Your task to perform on an android device: Go to accessibility settings Image 0: 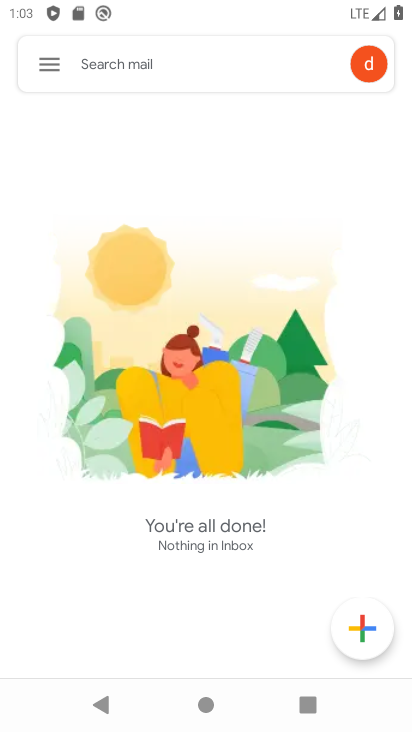
Step 0: press home button
Your task to perform on an android device: Go to accessibility settings Image 1: 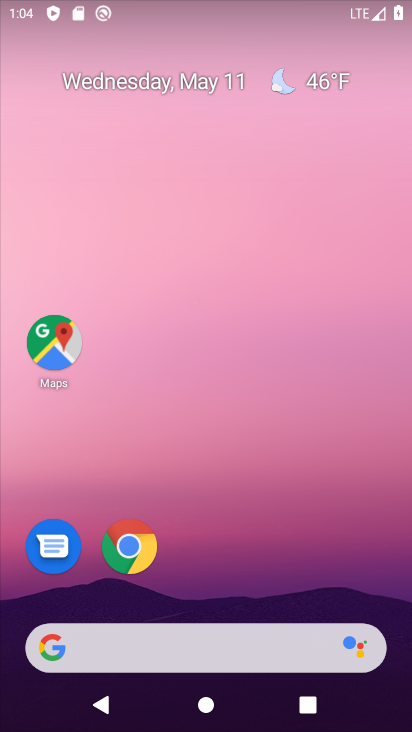
Step 1: drag from (266, 679) to (187, 227)
Your task to perform on an android device: Go to accessibility settings Image 2: 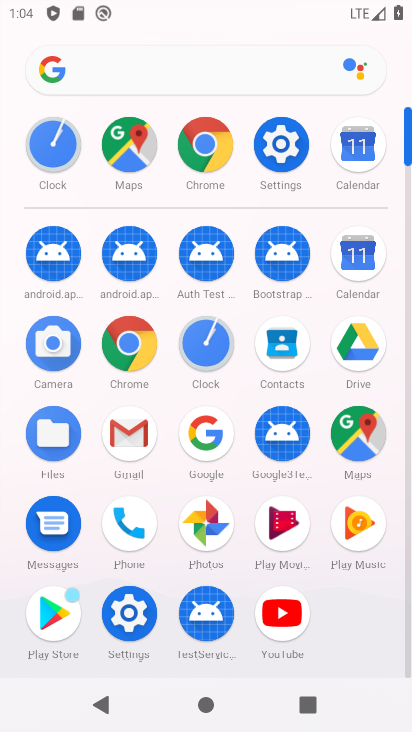
Step 2: click (275, 143)
Your task to perform on an android device: Go to accessibility settings Image 3: 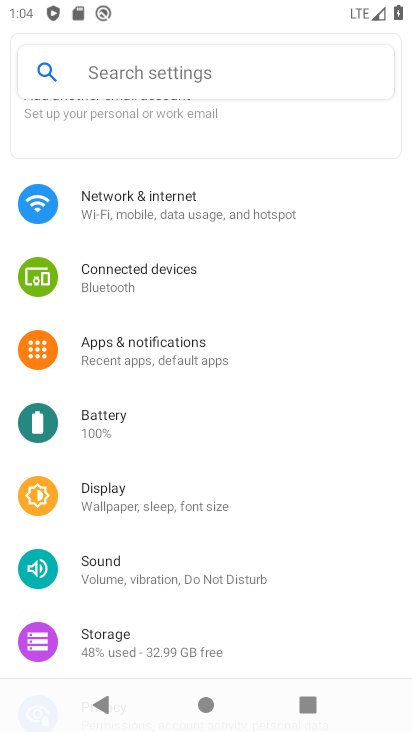
Step 3: click (129, 73)
Your task to perform on an android device: Go to accessibility settings Image 4: 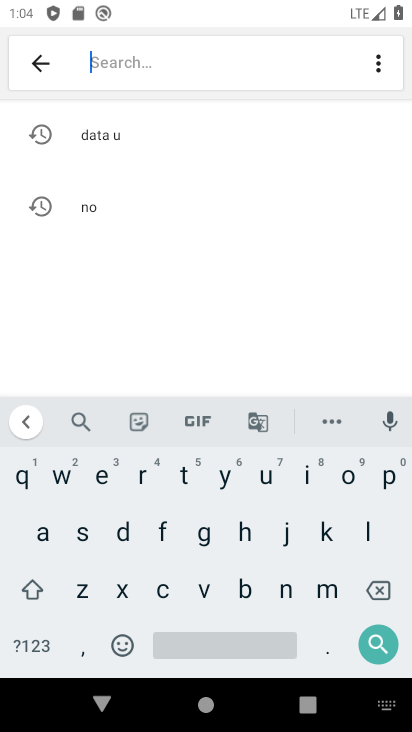
Step 4: click (38, 527)
Your task to perform on an android device: Go to accessibility settings Image 5: 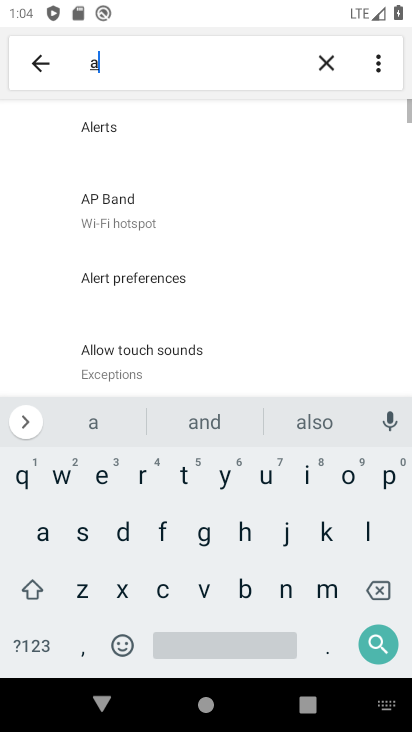
Step 5: click (157, 593)
Your task to perform on an android device: Go to accessibility settings Image 6: 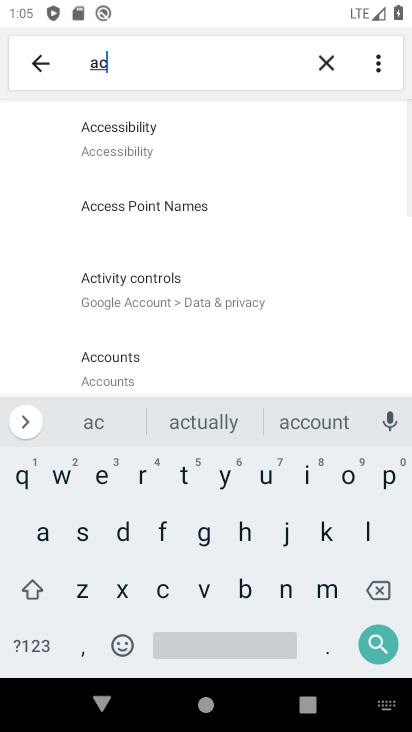
Step 6: click (140, 149)
Your task to perform on an android device: Go to accessibility settings Image 7: 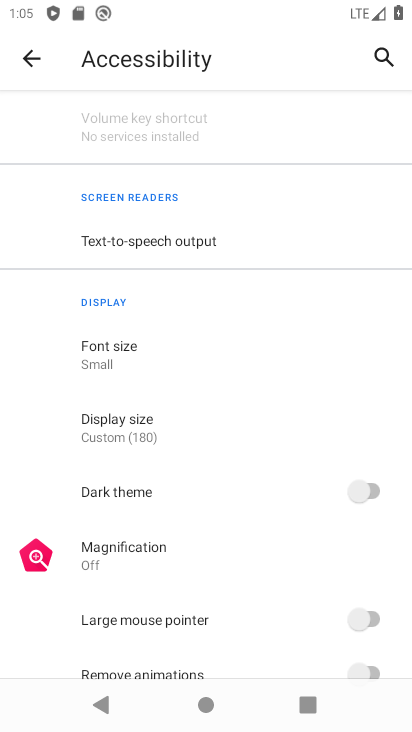
Step 7: task complete